Your task to perform on an android device: What's the weather? Image 0: 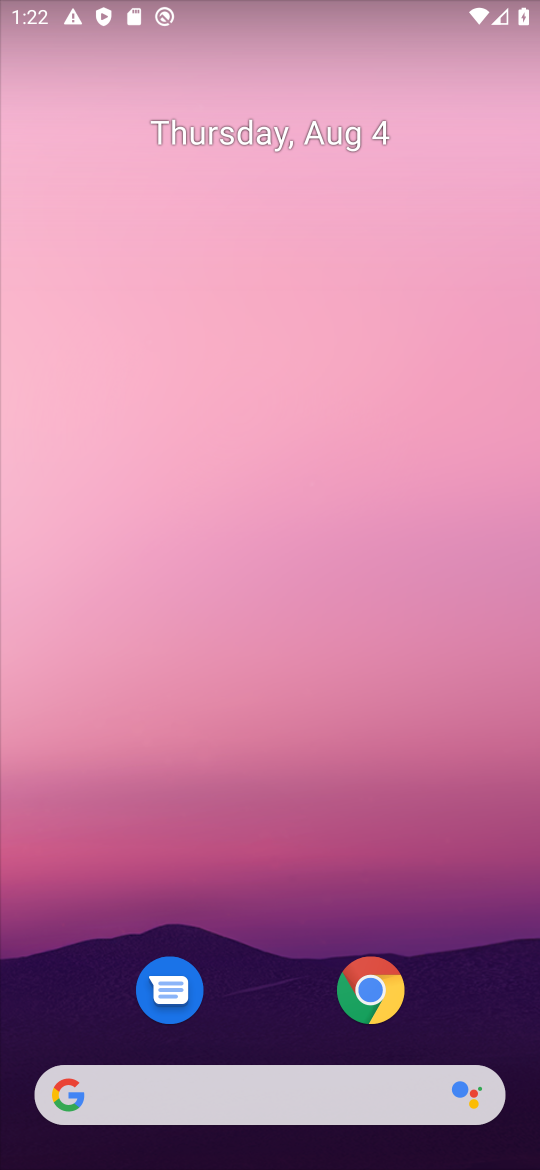
Step 0: click (303, 1106)
Your task to perform on an android device: What's the weather? Image 1: 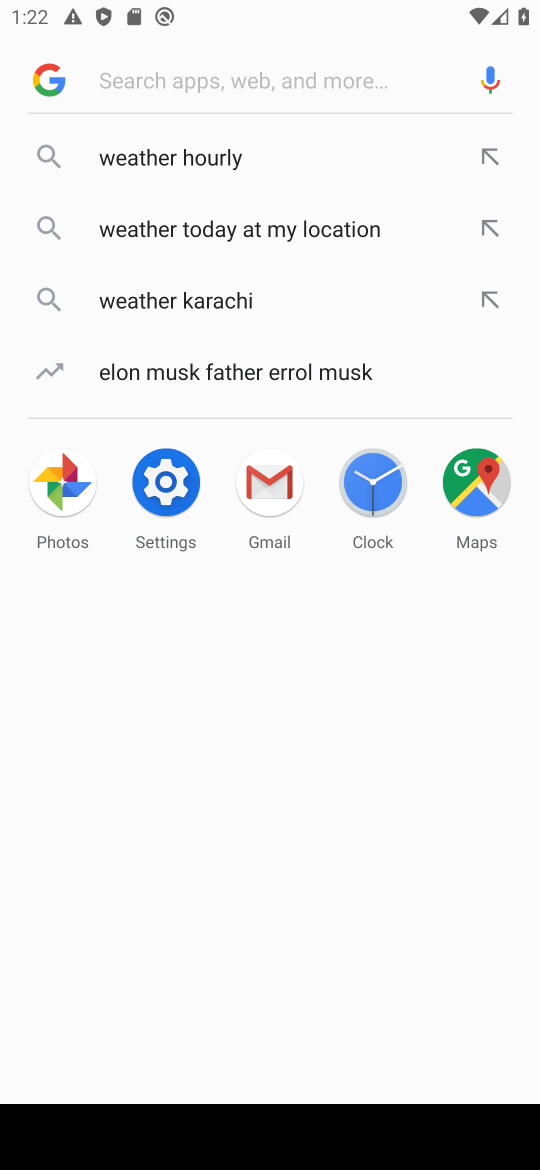
Step 1: click (172, 136)
Your task to perform on an android device: What's the weather? Image 2: 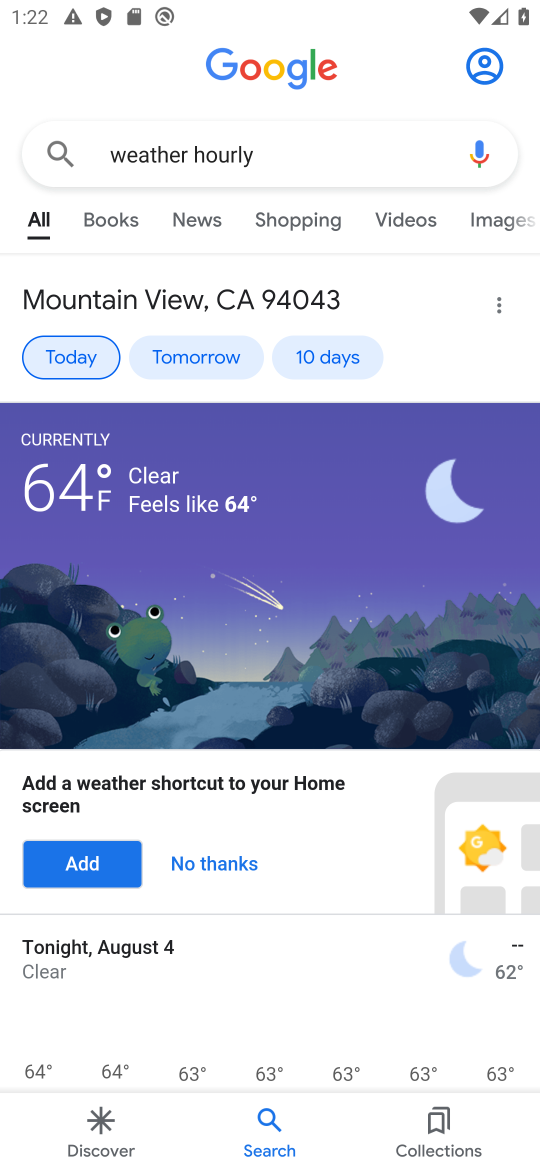
Step 2: task complete